Your task to perform on an android device: empty trash in google photos Image 0: 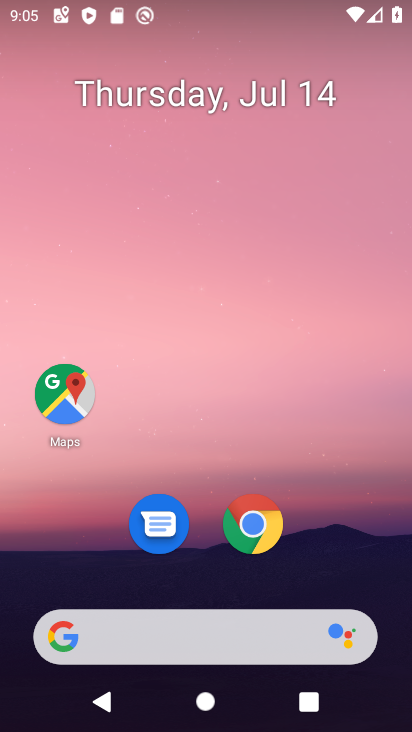
Step 0: drag from (347, 513) to (283, 58)
Your task to perform on an android device: empty trash in google photos Image 1: 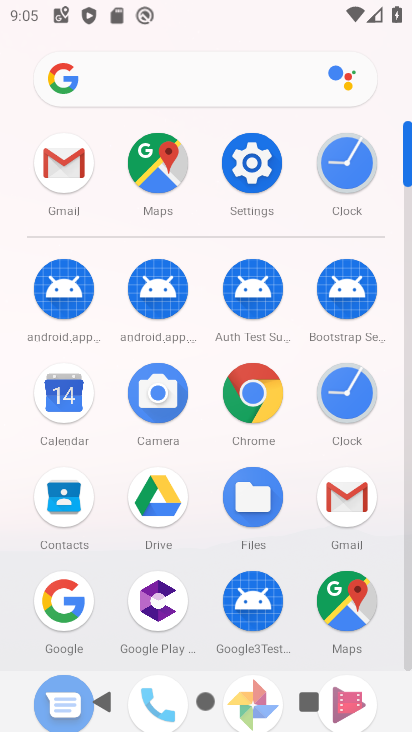
Step 1: drag from (309, 522) to (306, 218)
Your task to perform on an android device: empty trash in google photos Image 2: 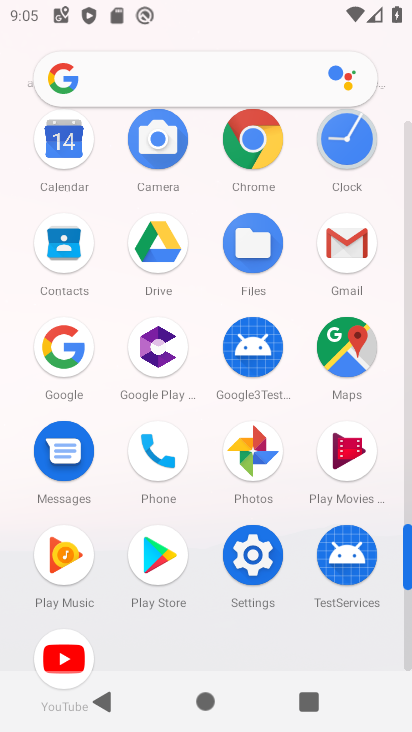
Step 2: click (265, 449)
Your task to perform on an android device: empty trash in google photos Image 3: 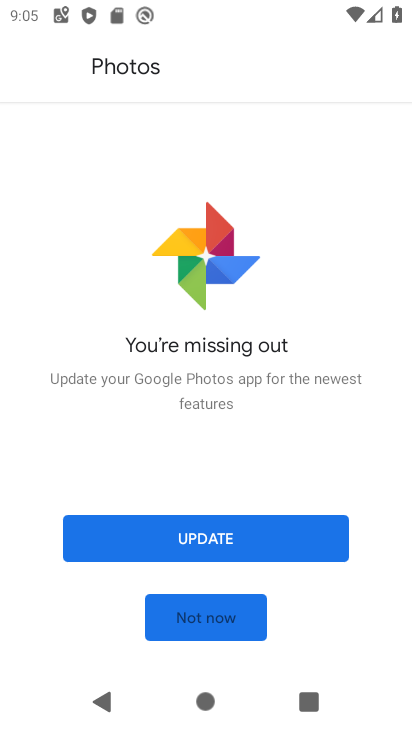
Step 3: click (233, 621)
Your task to perform on an android device: empty trash in google photos Image 4: 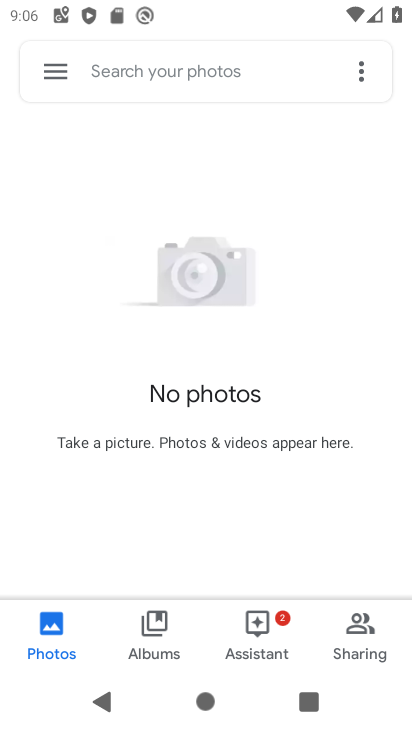
Step 4: click (48, 63)
Your task to perform on an android device: empty trash in google photos Image 5: 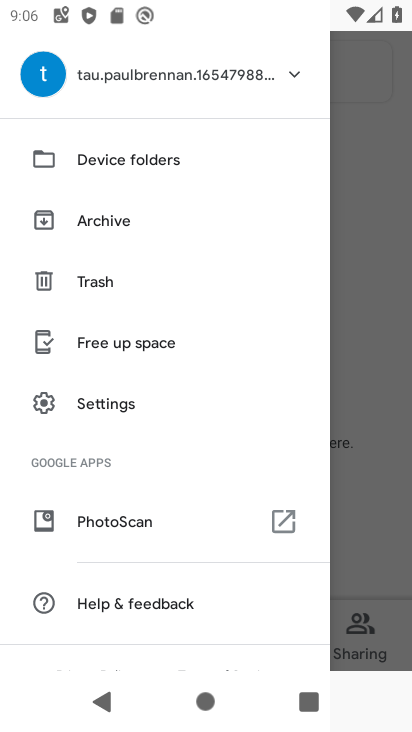
Step 5: click (103, 288)
Your task to perform on an android device: empty trash in google photos Image 6: 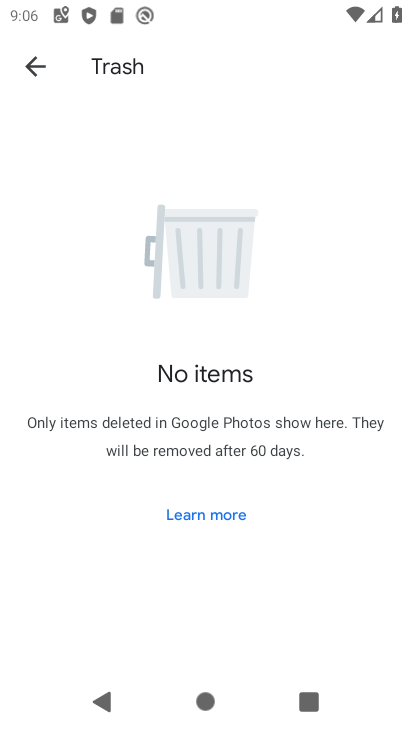
Step 6: task complete